Your task to perform on an android device: open wifi settings Image 0: 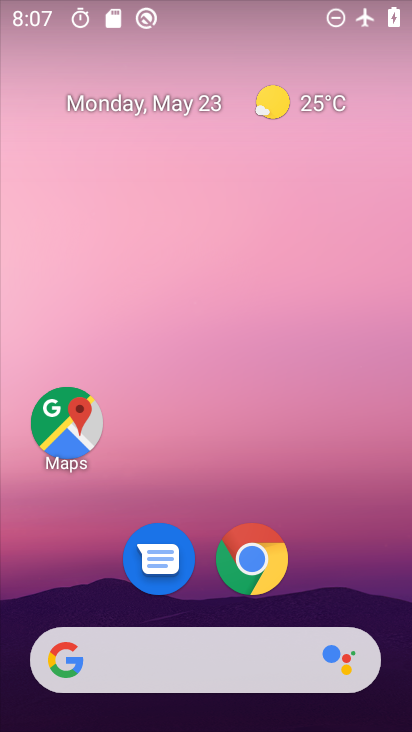
Step 0: drag from (398, 614) to (229, 61)
Your task to perform on an android device: open wifi settings Image 1: 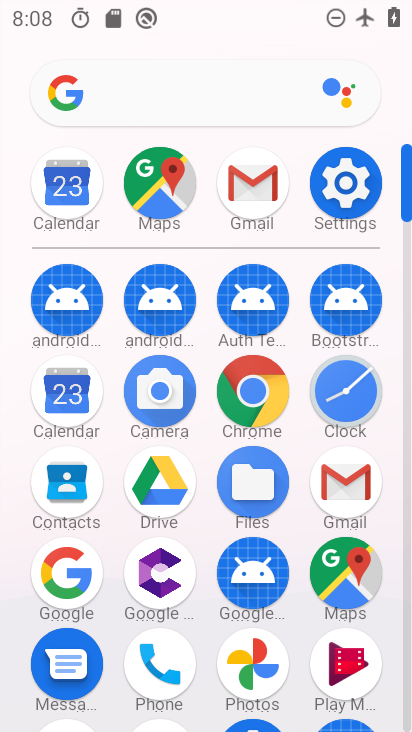
Step 1: click (334, 176)
Your task to perform on an android device: open wifi settings Image 2: 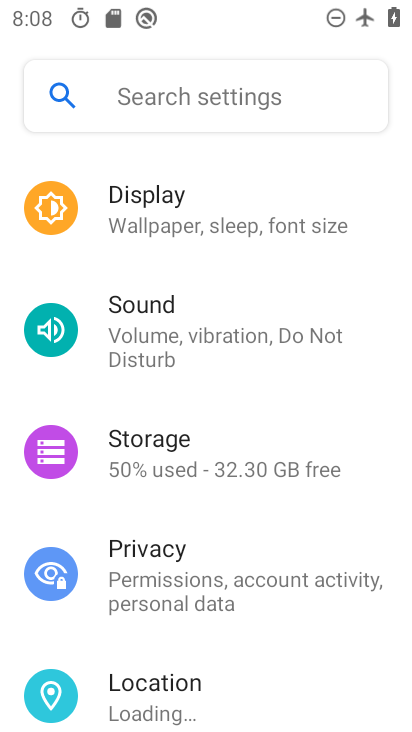
Step 2: drag from (229, 211) to (242, 682)
Your task to perform on an android device: open wifi settings Image 3: 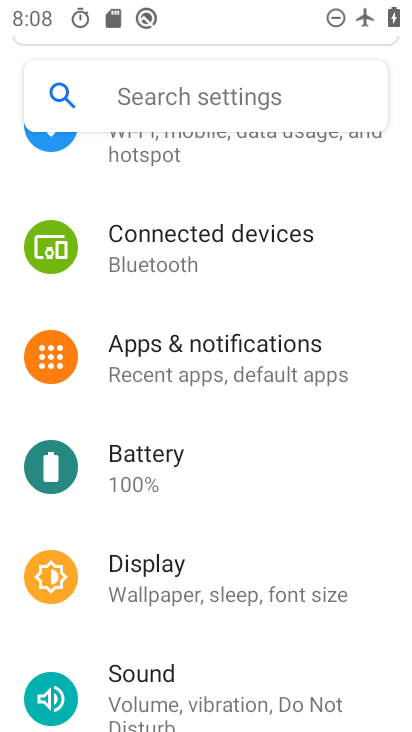
Step 3: drag from (176, 315) to (311, 554)
Your task to perform on an android device: open wifi settings Image 4: 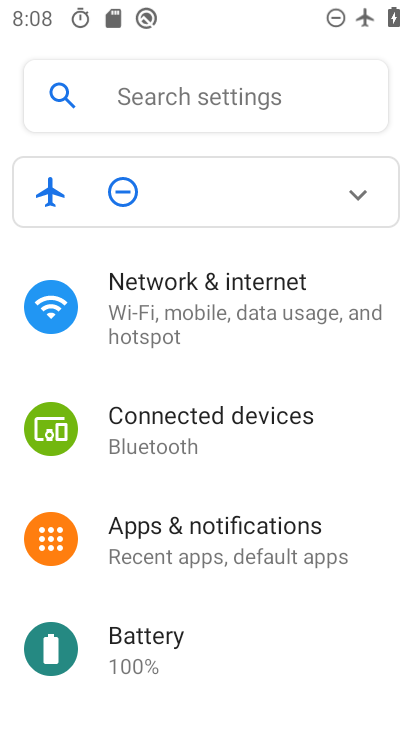
Step 4: click (142, 304)
Your task to perform on an android device: open wifi settings Image 5: 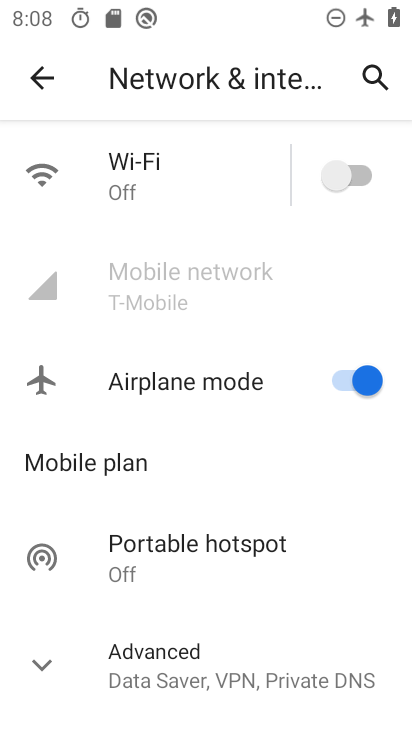
Step 5: click (119, 217)
Your task to perform on an android device: open wifi settings Image 6: 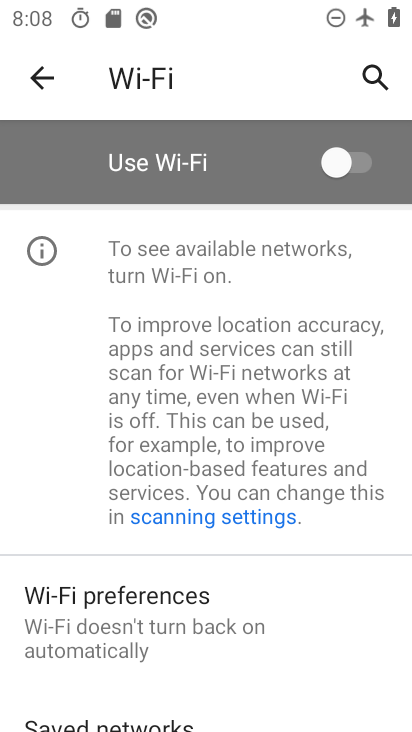
Step 6: task complete